Your task to perform on an android device: What is the recent news? Image 0: 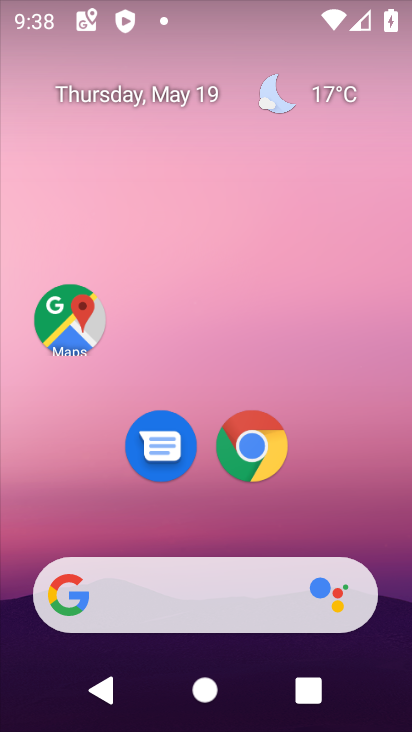
Step 0: click (192, 595)
Your task to perform on an android device: What is the recent news? Image 1: 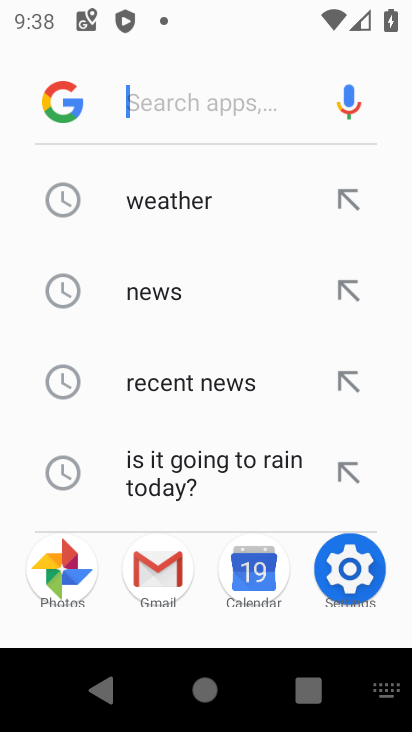
Step 1: click (221, 398)
Your task to perform on an android device: What is the recent news? Image 2: 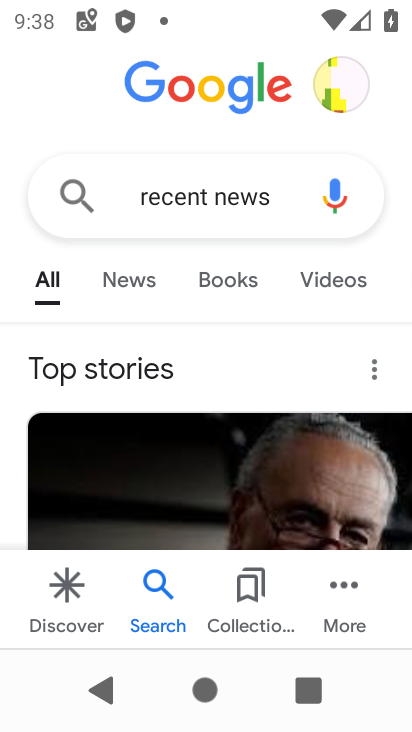
Step 2: task complete